Your task to perform on an android device: Go to settings Image 0: 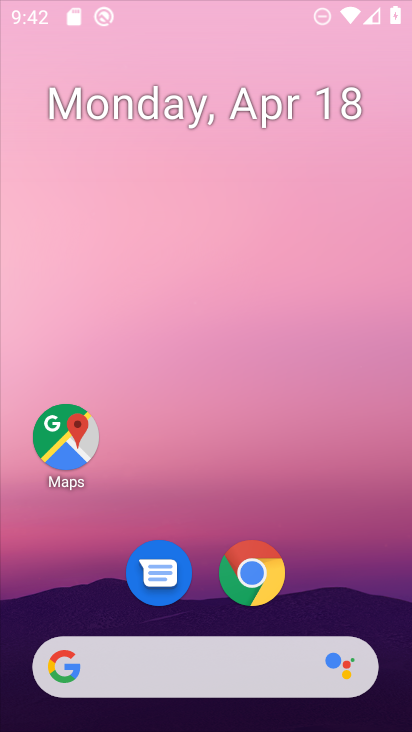
Step 0: click (330, 34)
Your task to perform on an android device: Go to settings Image 1: 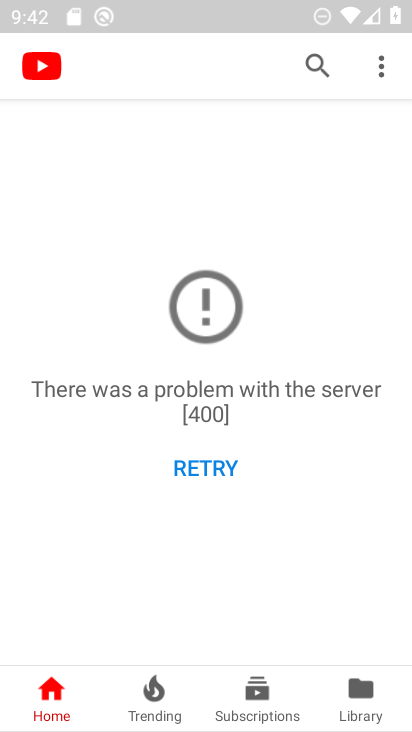
Step 1: press home button
Your task to perform on an android device: Go to settings Image 2: 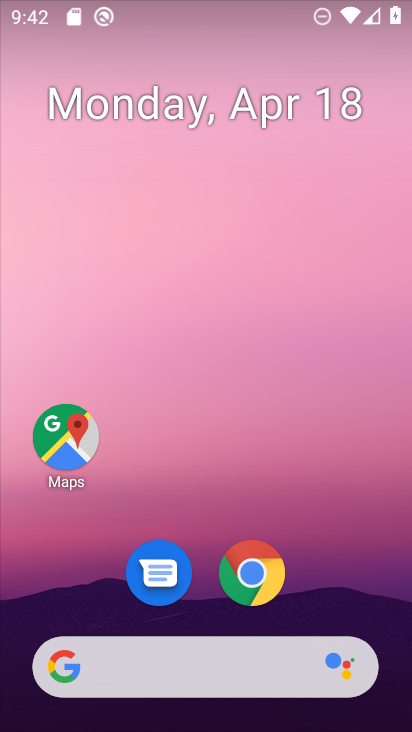
Step 2: drag from (356, 587) to (320, 15)
Your task to perform on an android device: Go to settings Image 3: 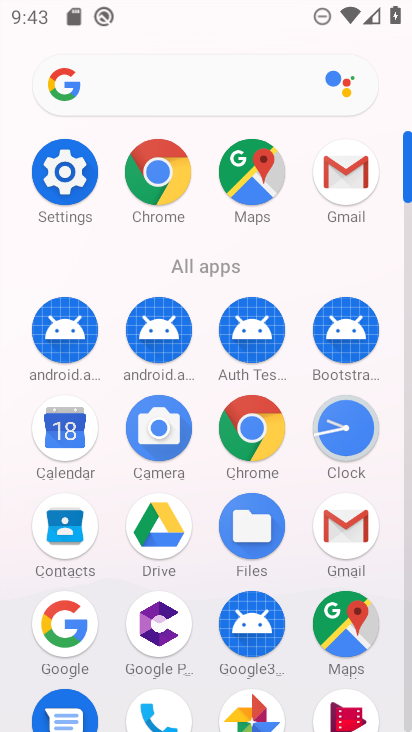
Step 3: click (73, 153)
Your task to perform on an android device: Go to settings Image 4: 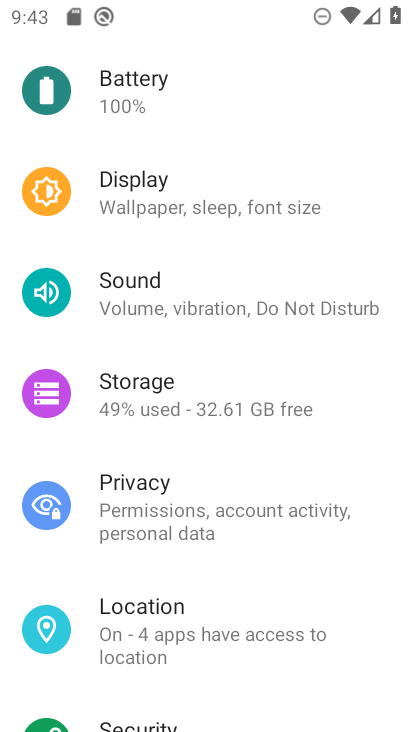
Step 4: task complete